Your task to perform on an android device: Open sound settings Image 0: 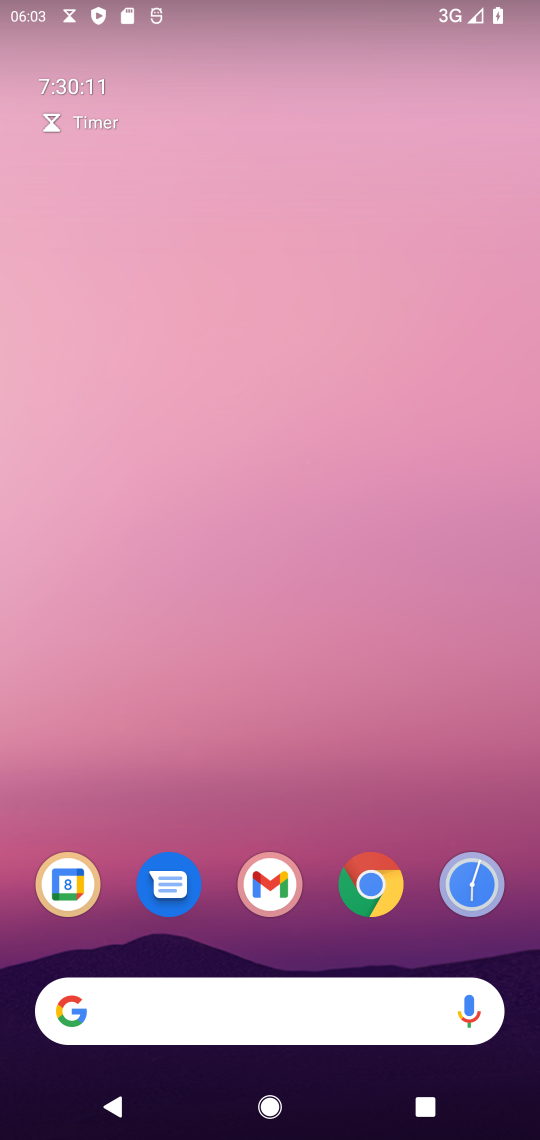
Step 0: drag from (312, 832) to (240, 83)
Your task to perform on an android device: Open sound settings Image 1: 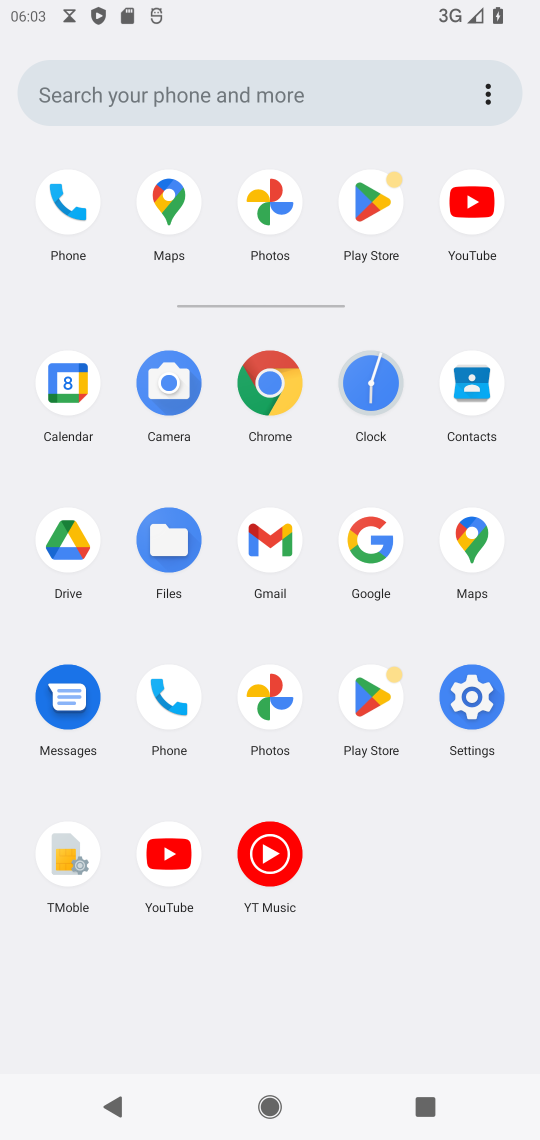
Step 1: click (473, 696)
Your task to perform on an android device: Open sound settings Image 2: 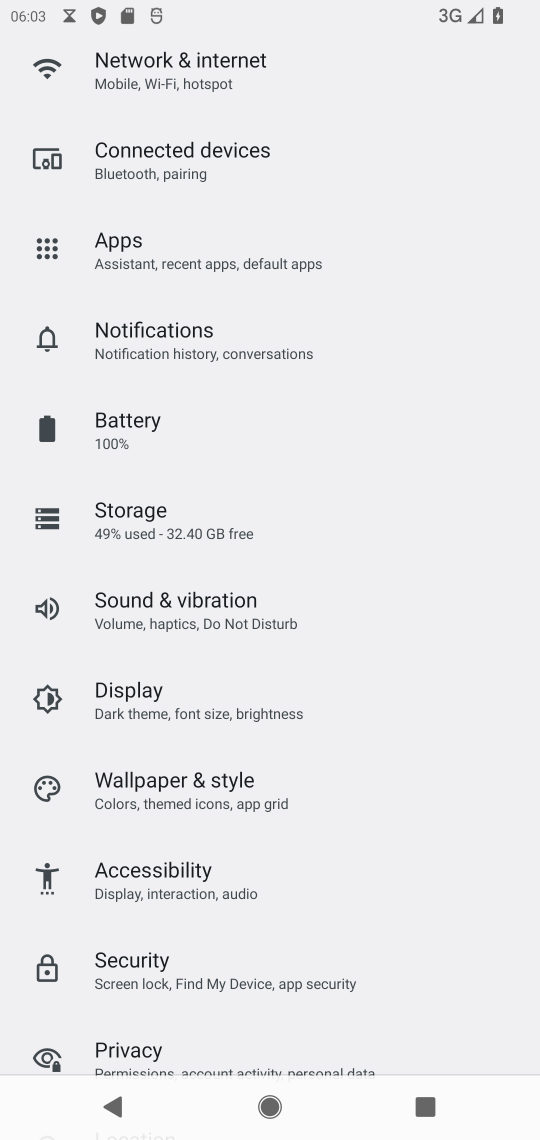
Step 2: click (252, 617)
Your task to perform on an android device: Open sound settings Image 3: 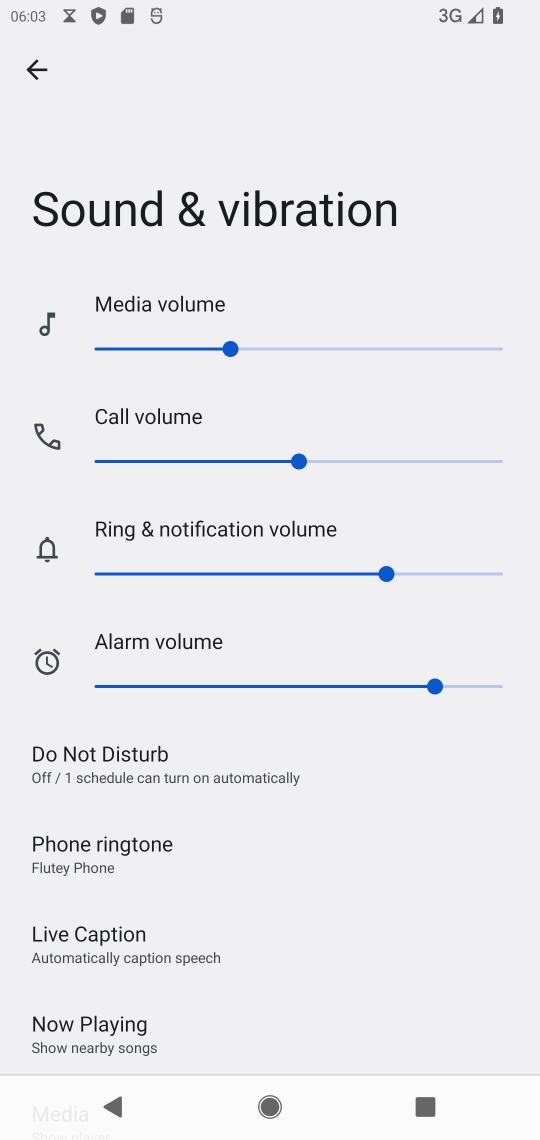
Step 3: task complete